Your task to perform on an android device: toggle data saver in the chrome app Image 0: 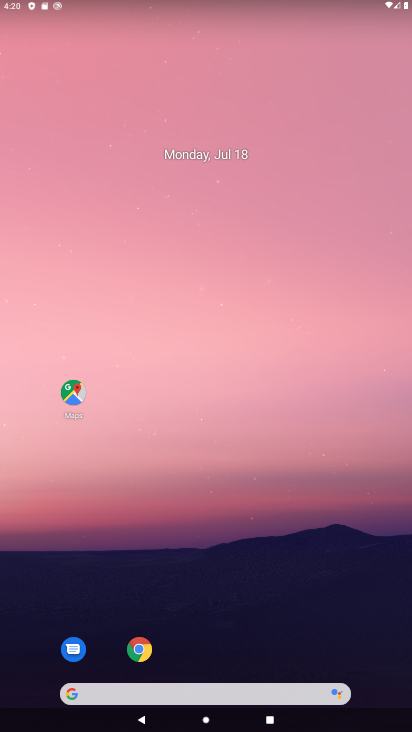
Step 0: click (143, 635)
Your task to perform on an android device: toggle data saver in the chrome app Image 1: 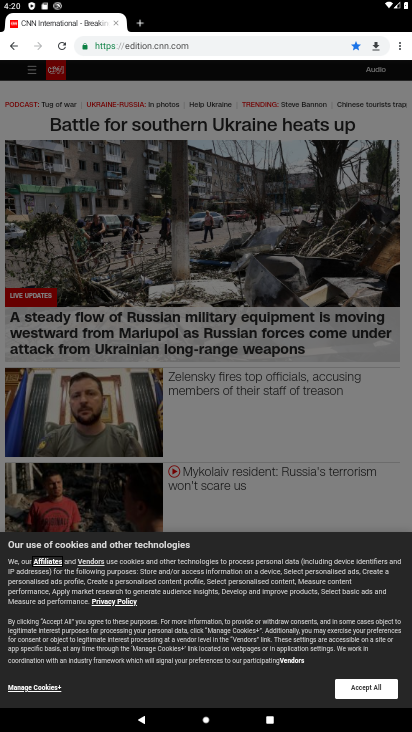
Step 1: click (397, 37)
Your task to perform on an android device: toggle data saver in the chrome app Image 2: 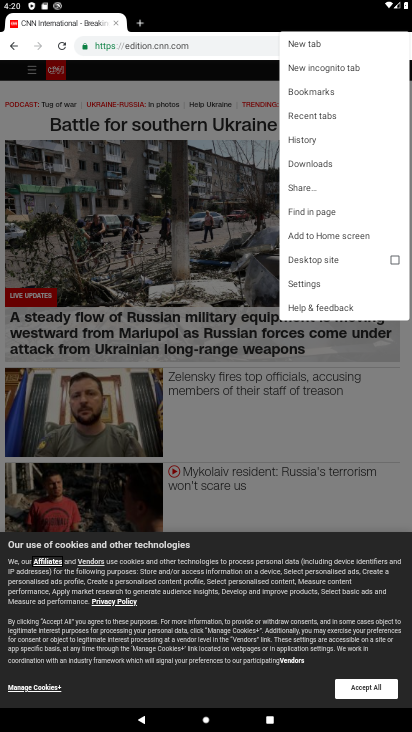
Step 2: click (301, 282)
Your task to perform on an android device: toggle data saver in the chrome app Image 3: 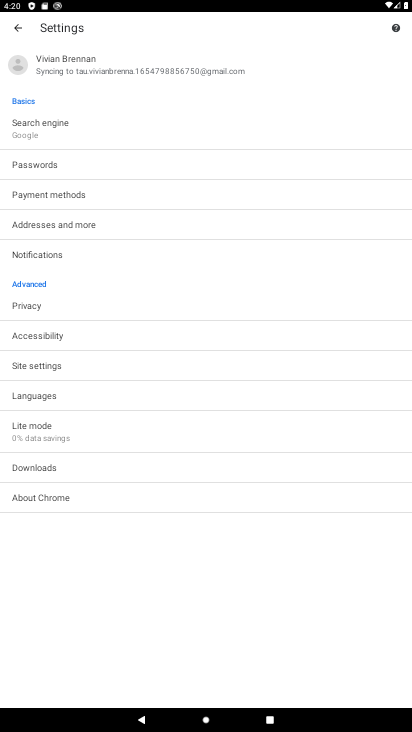
Step 3: click (57, 369)
Your task to perform on an android device: toggle data saver in the chrome app Image 4: 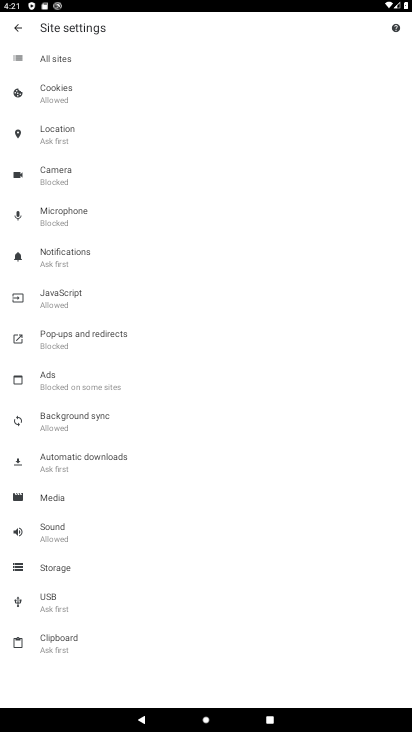
Step 4: click (6, 27)
Your task to perform on an android device: toggle data saver in the chrome app Image 5: 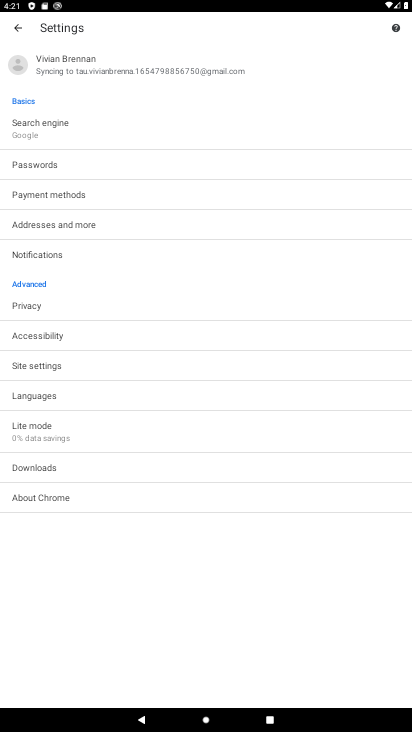
Step 5: click (61, 430)
Your task to perform on an android device: toggle data saver in the chrome app Image 6: 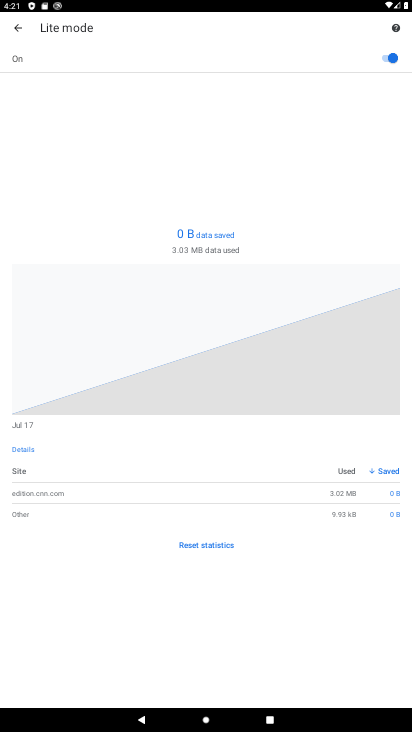
Step 6: click (360, 62)
Your task to perform on an android device: toggle data saver in the chrome app Image 7: 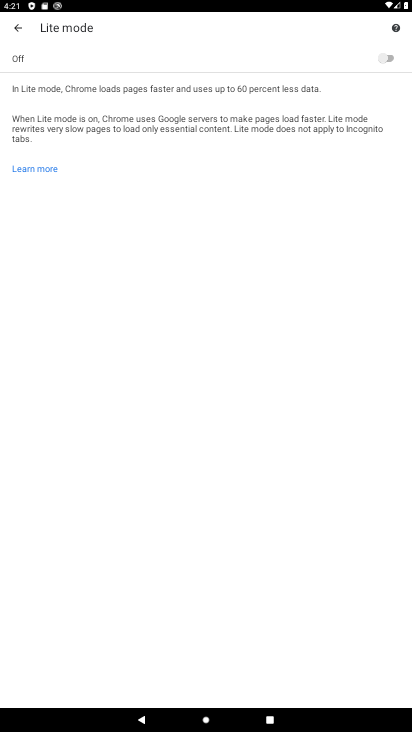
Step 7: task complete